Your task to perform on an android device: delete location history Image 0: 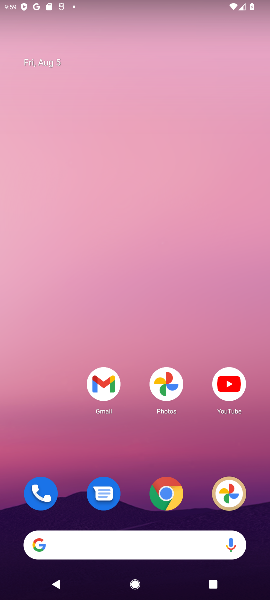
Step 0: press home button
Your task to perform on an android device: delete location history Image 1: 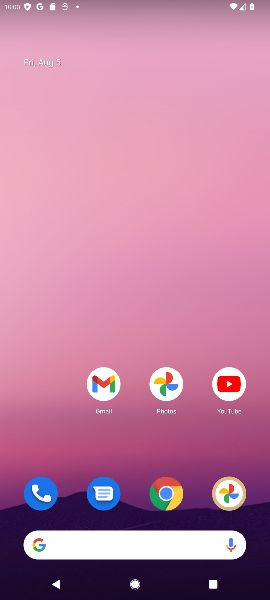
Step 1: drag from (131, 456) to (150, 36)
Your task to perform on an android device: delete location history Image 2: 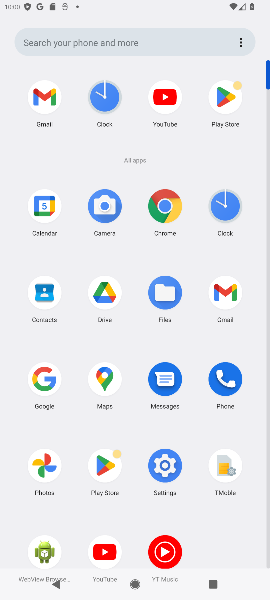
Step 2: click (102, 376)
Your task to perform on an android device: delete location history Image 3: 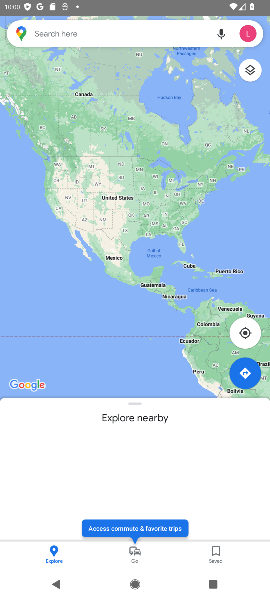
Step 3: click (246, 31)
Your task to perform on an android device: delete location history Image 4: 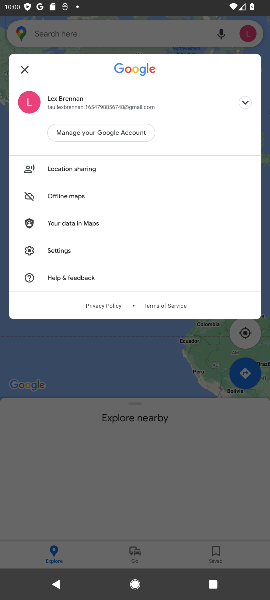
Step 4: click (28, 66)
Your task to perform on an android device: delete location history Image 5: 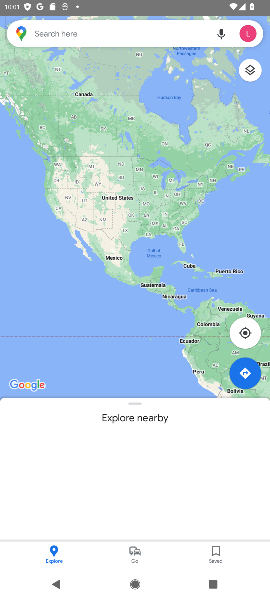
Step 5: click (248, 36)
Your task to perform on an android device: delete location history Image 6: 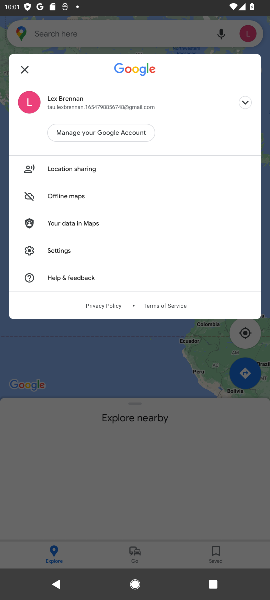
Step 6: click (87, 430)
Your task to perform on an android device: delete location history Image 7: 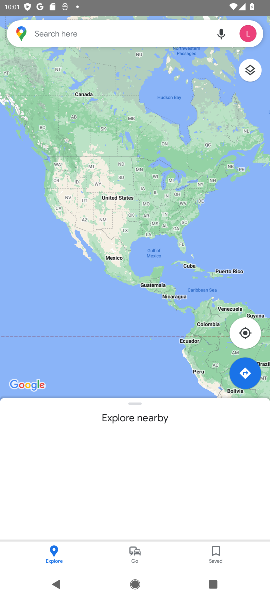
Step 7: click (16, 33)
Your task to perform on an android device: delete location history Image 8: 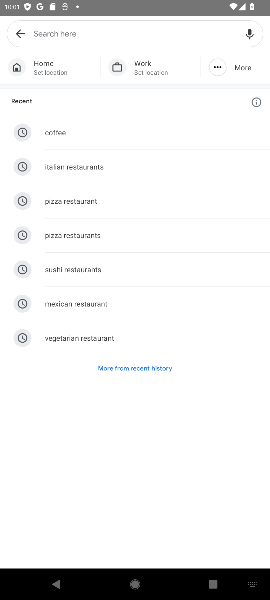
Step 8: task complete